Your task to perform on an android device: Go to ESPN.com Image 0: 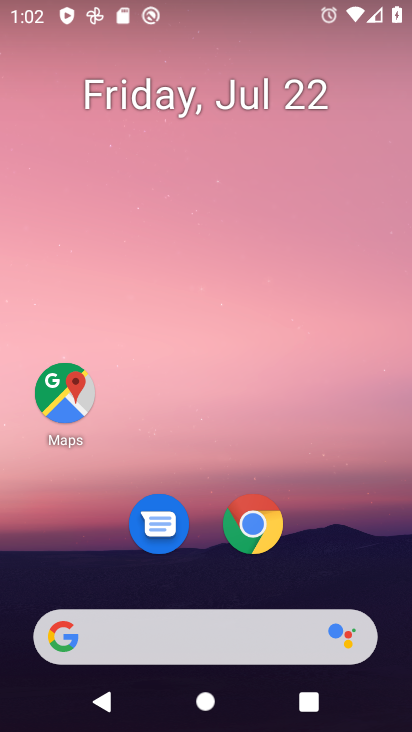
Step 0: click (259, 530)
Your task to perform on an android device: Go to ESPN.com Image 1: 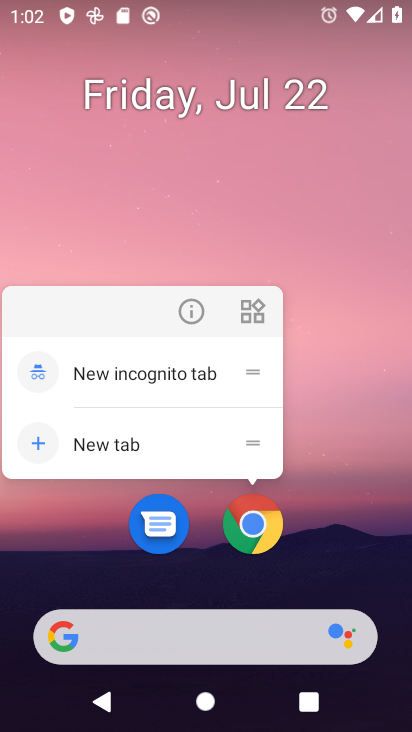
Step 1: click (259, 530)
Your task to perform on an android device: Go to ESPN.com Image 2: 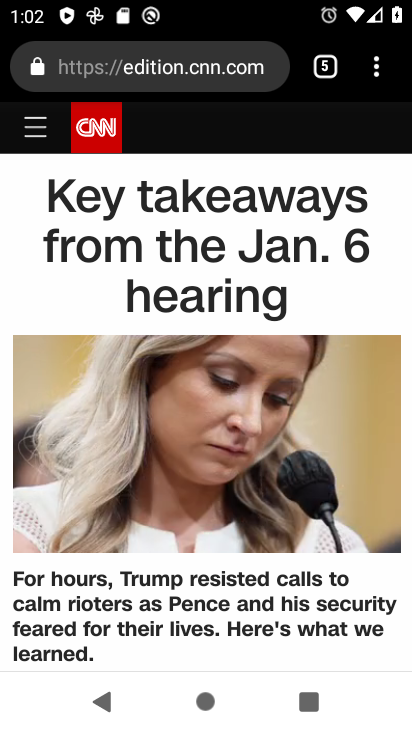
Step 2: drag from (371, 68) to (212, 128)
Your task to perform on an android device: Go to ESPN.com Image 3: 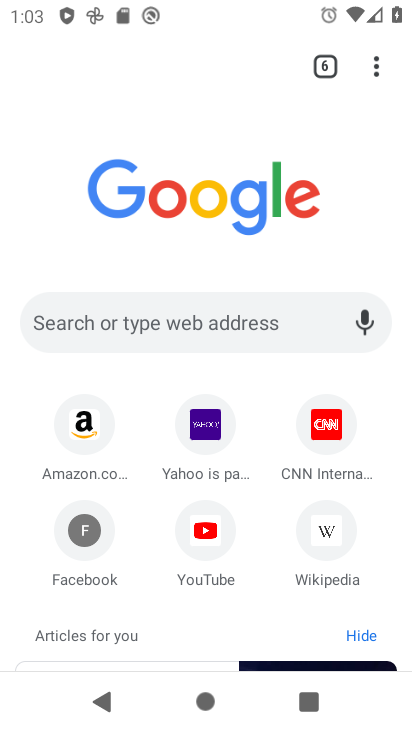
Step 3: click (163, 316)
Your task to perform on an android device: Go to ESPN.com Image 4: 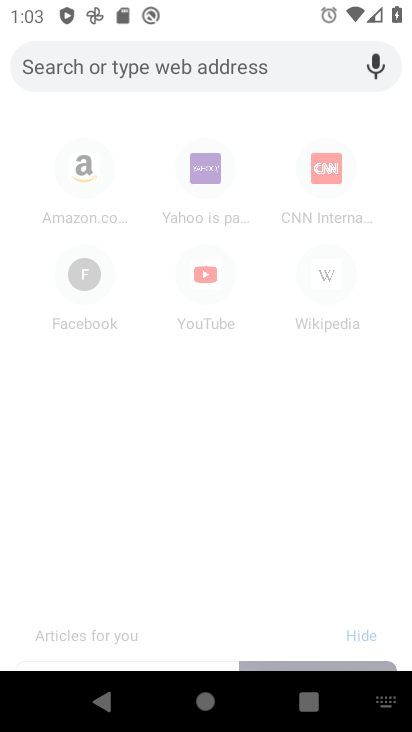
Step 4: type "ESPN.com"
Your task to perform on an android device: Go to ESPN.com Image 5: 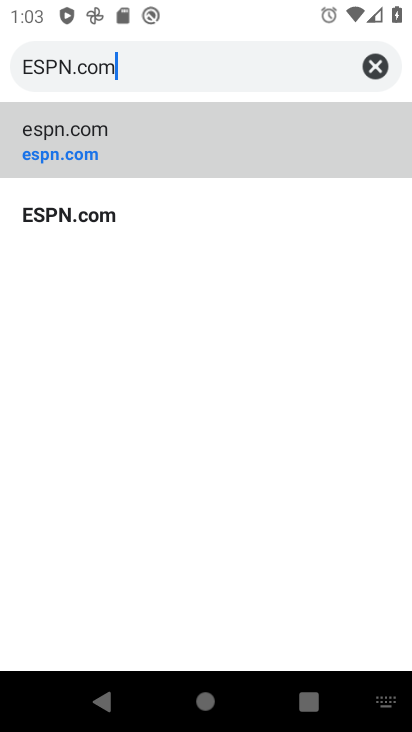
Step 5: click (93, 147)
Your task to perform on an android device: Go to ESPN.com Image 6: 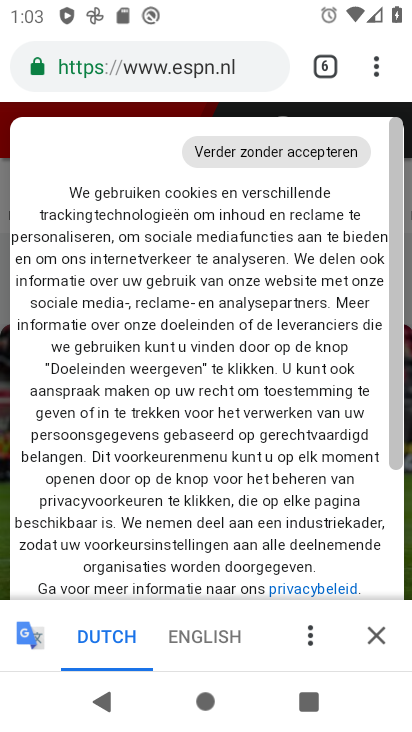
Step 6: drag from (151, 497) to (368, 104)
Your task to perform on an android device: Go to ESPN.com Image 7: 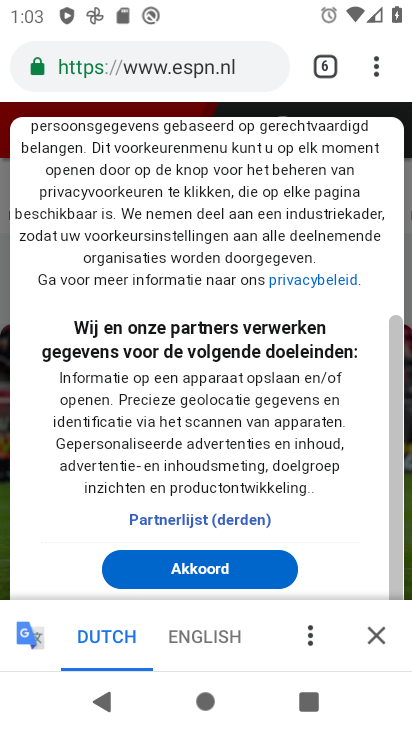
Step 7: click (200, 652)
Your task to perform on an android device: Go to ESPN.com Image 8: 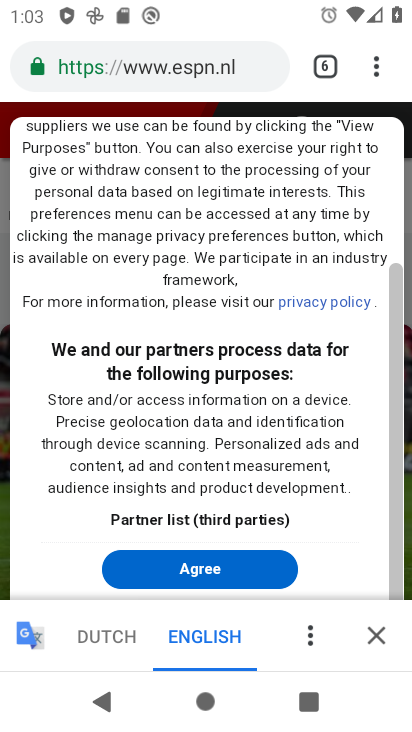
Step 8: click (202, 569)
Your task to perform on an android device: Go to ESPN.com Image 9: 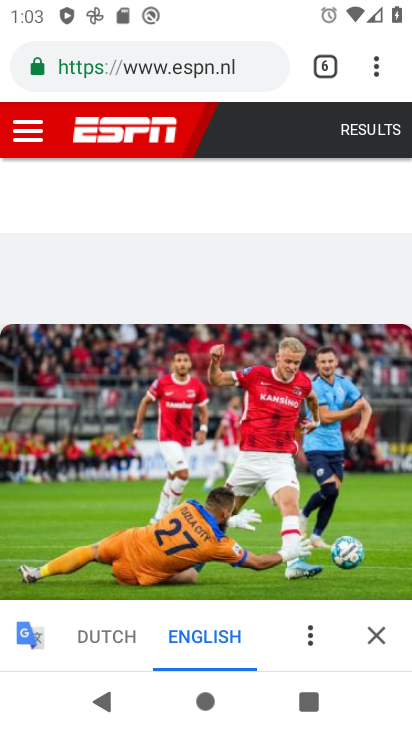
Step 9: task complete